Your task to perform on an android device: What is the recent news? Image 0: 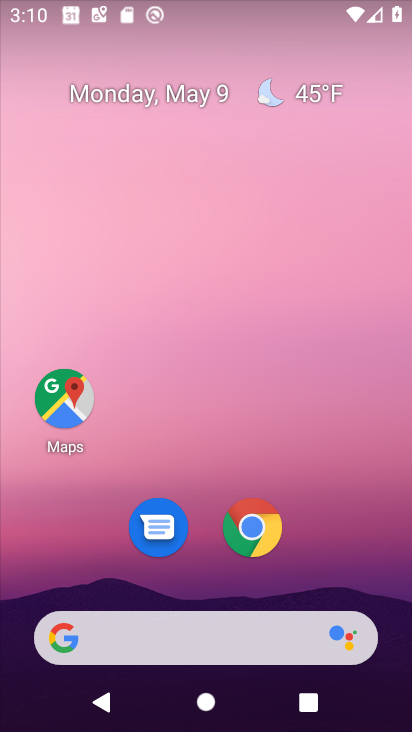
Step 0: drag from (287, 591) to (291, 138)
Your task to perform on an android device: What is the recent news? Image 1: 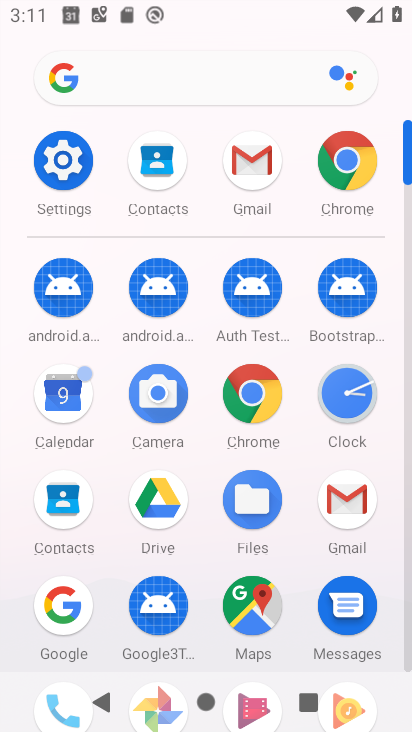
Step 1: drag from (183, 597) to (184, 338)
Your task to perform on an android device: What is the recent news? Image 2: 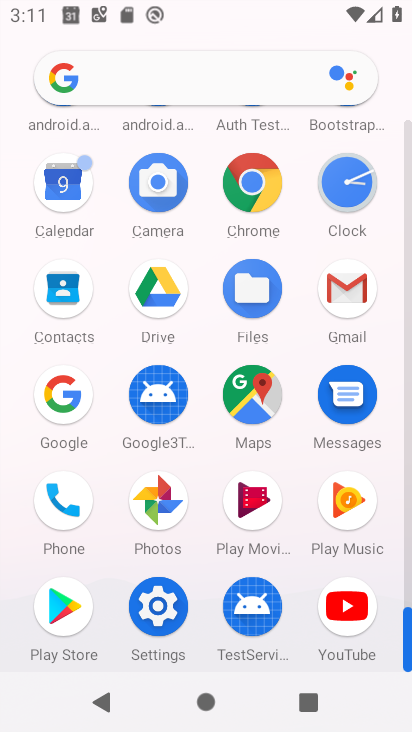
Step 2: click (75, 421)
Your task to perform on an android device: What is the recent news? Image 3: 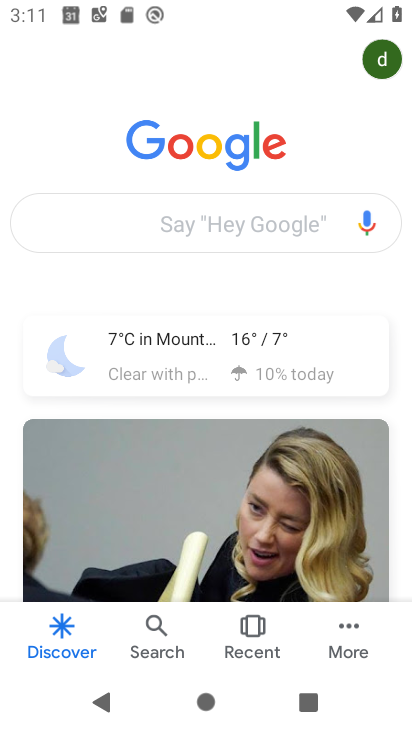
Step 3: click (222, 226)
Your task to perform on an android device: What is the recent news? Image 4: 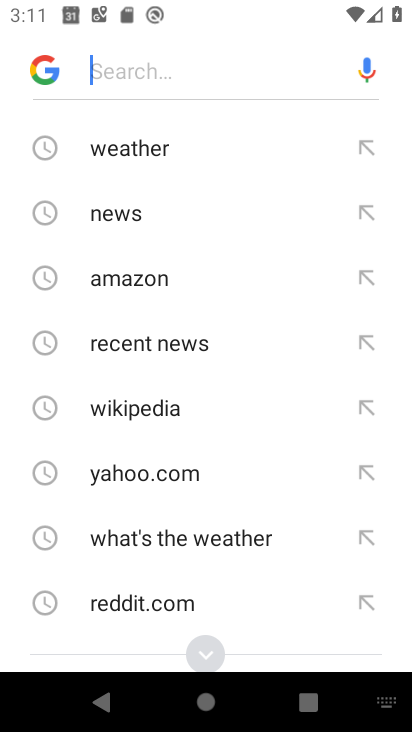
Step 4: click (150, 210)
Your task to perform on an android device: What is the recent news? Image 5: 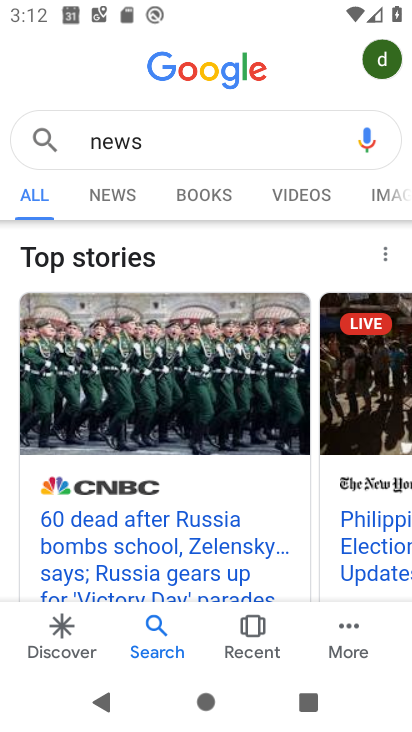
Step 5: task complete